Your task to perform on an android device: Add "apple airpods pro" to the cart on ebay.com, then select checkout. Image 0: 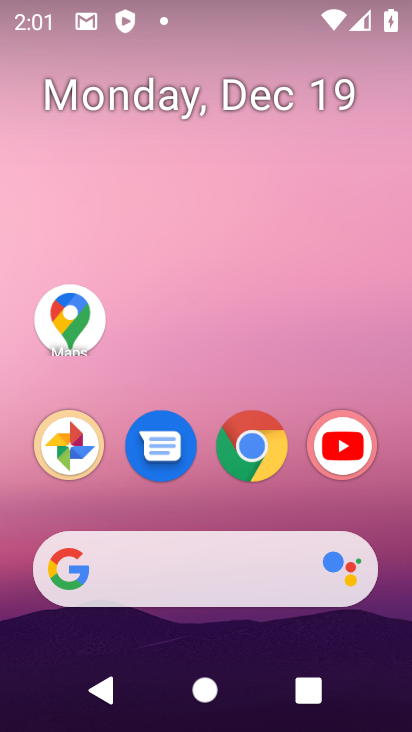
Step 0: click (267, 453)
Your task to perform on an android device: Add "apple airpods pro" to the cart on ebay.com, then select checkout. Image 1: 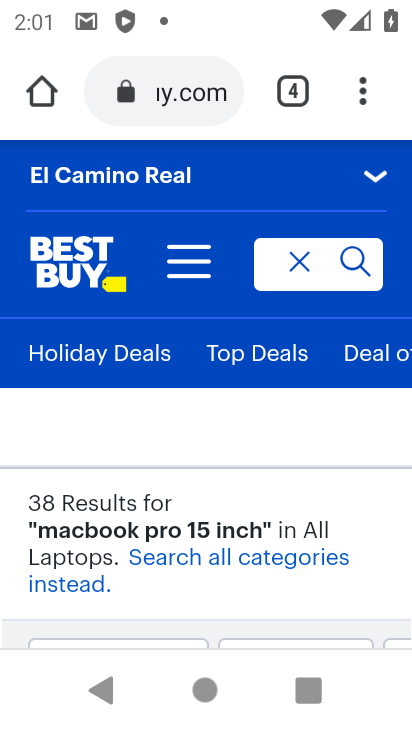
Step 1: click (198, 101)
Your task to perform on an android device: Add "apple airpods pro" to the cart on ebay.com, then select checkout. Image 2: 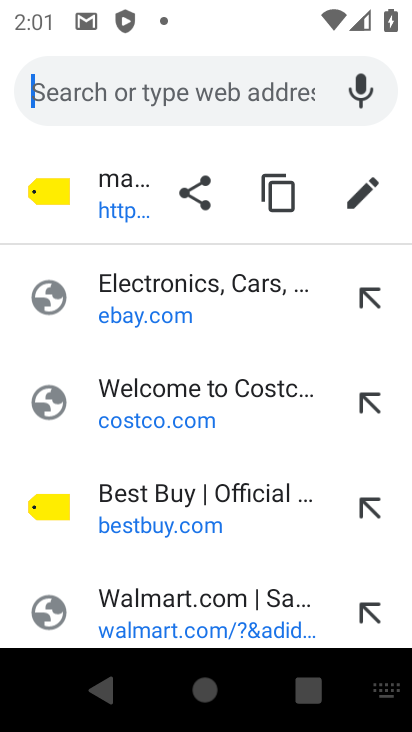
Step 2: type "apple airpod"
Your task to perform on an android device: Add "apple airpods pro" to the cart on ebay.com, then select checkout. Image 3: 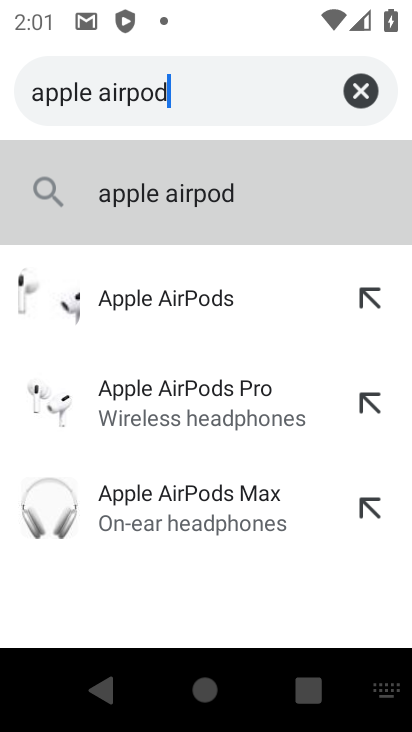
Step 3: click (159, 307)
Your task to perform on an android device: Add "apple airpods pro" to the cart on ebay.com, then select checkout. Image 4: 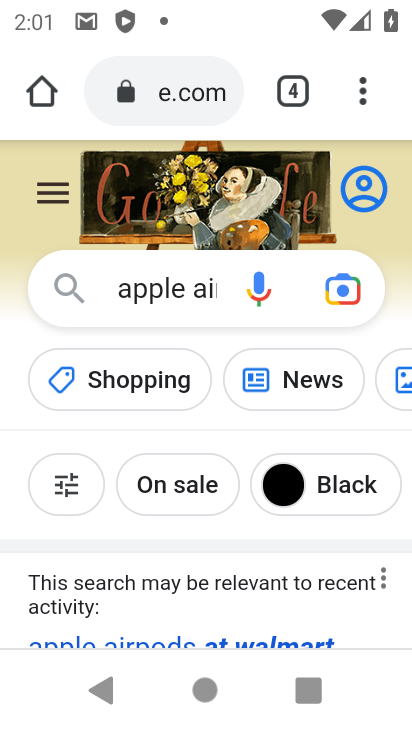
Step 4: click (108, 630)
Your task to perform on an android device: Add "apple airpods pro" to the cart on ebay.com, then select checkout. Image 5: 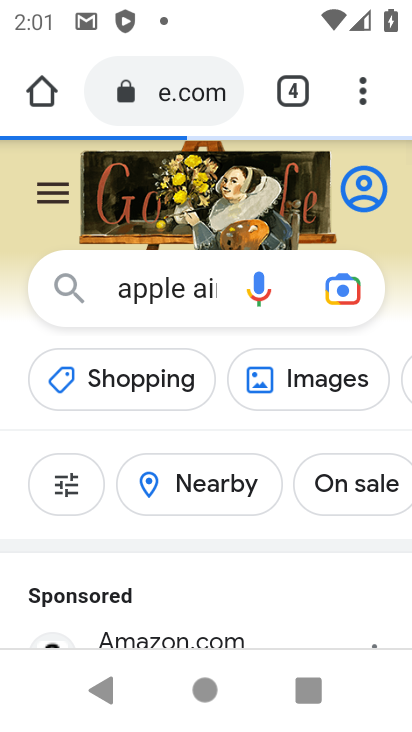
Step 5: task complete